Your task to perform on an android device: Open Google Maps Image 0: 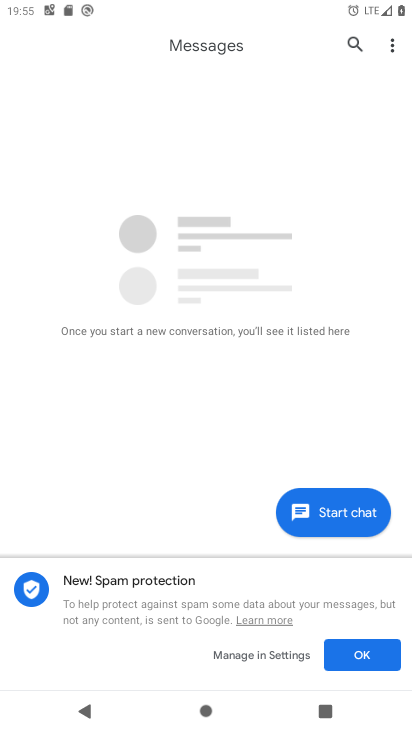
Step 0: press home button
Your task to perform on an android device: Open Google Maps Image 1: 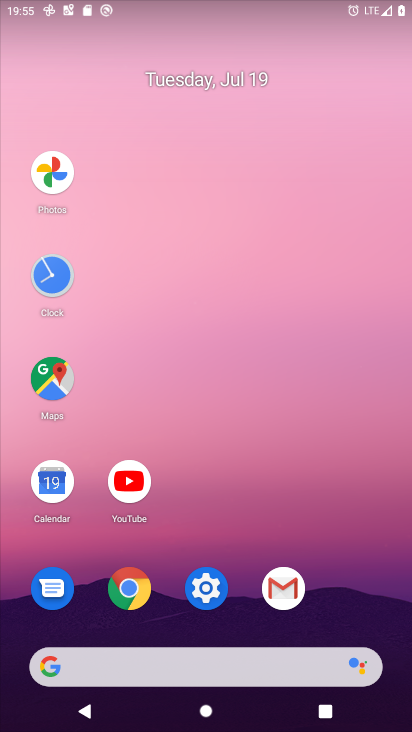
Step 1: click (51, 373)
Your task to perform on an android device: Open Google Maps Image 2: 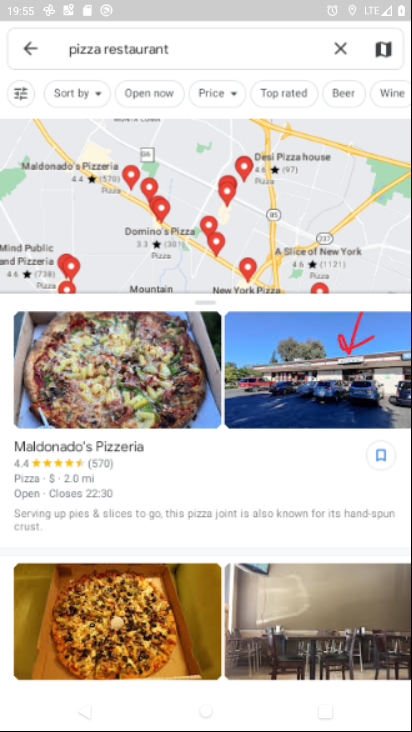
Step 2: click (32, 47)
Your task to perform on an android device: Open Google Maps Image 3: 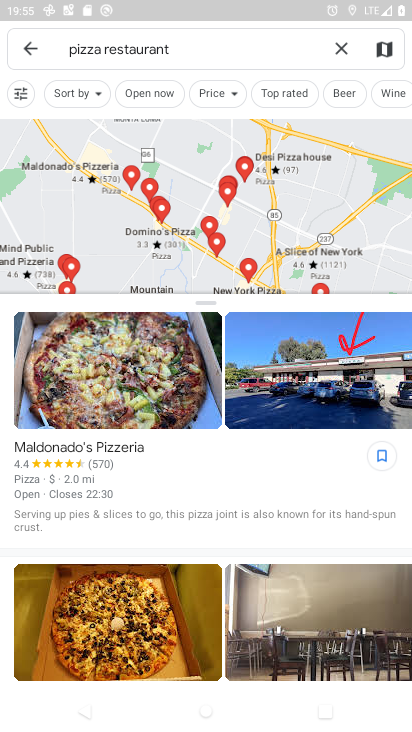
Step 3: click (33, 50)
Your task to perform on an android device: Open Google Maps Image 4: 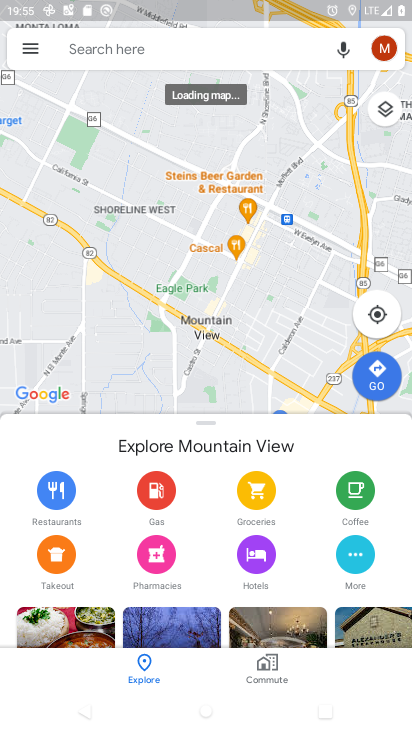
Step 4: task complete